Your task to perform on an android device: Open Google Chrome and open the bookmarks view Image 0: 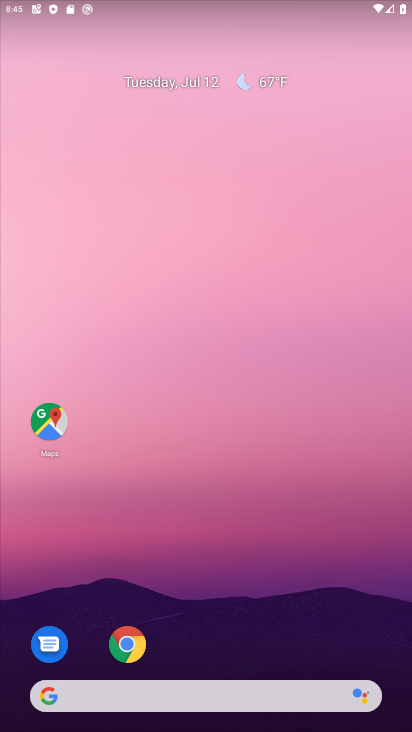
Step 0: click (274, 125)
Your task to perform on an android device: Open Google Chrome and open the bookmarks view Image 1: 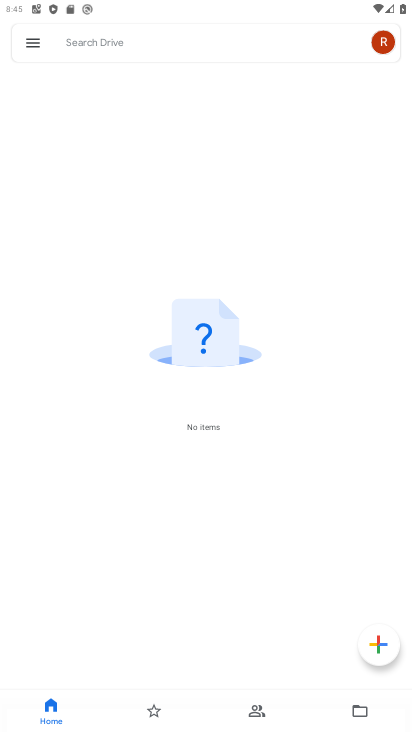
Step 1: press home button
Your task to perform on an android device: Open Google Chrome and open the bookmarks view Image 2: 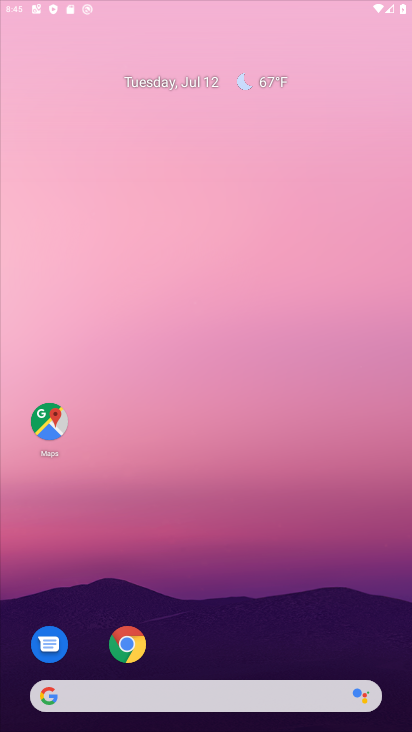
Step 2: drag from (217, 612) to (181, 0)
Your task to perform on an android device: Open Google Chrome and open the bookmarks view Image 3: 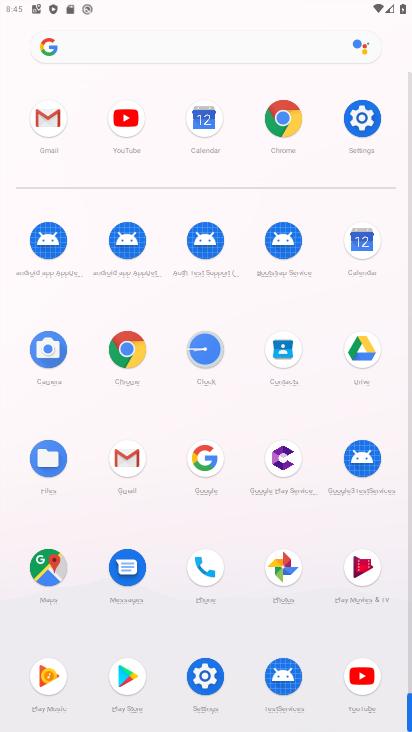
Step 3: click (286, 112)
Your task to perform on an android device: Open Google Chrome and open the bookmarks view Image 4: 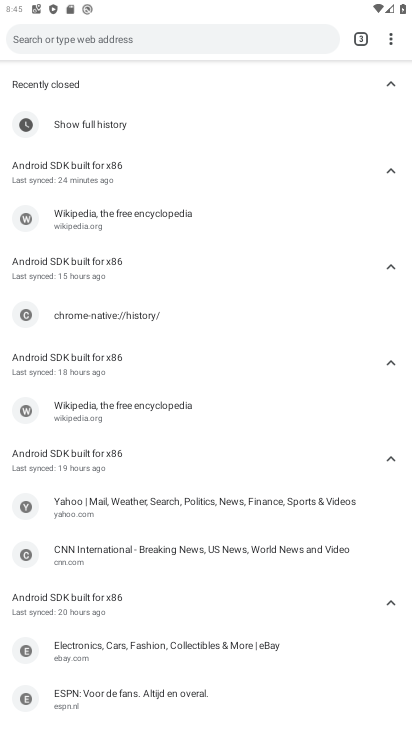
Step 4: click (392, 33)
Your task to perform on an android device: Open Google Chrome and open the bookmarks view Image 5: 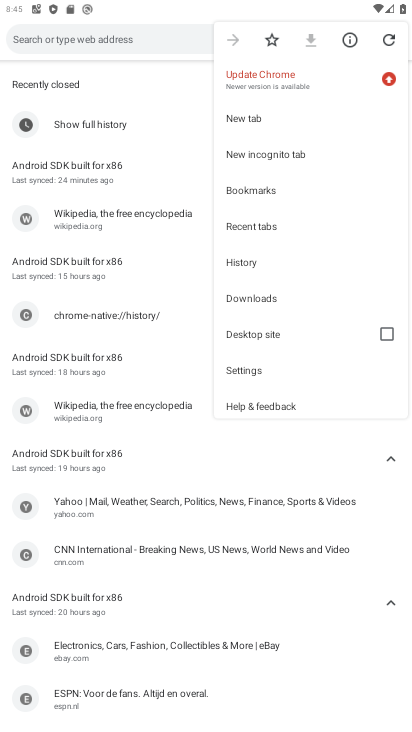
Step 5: click (263, 185)
Your task to perform on an android device: Open Google Chrome and open the bookmarks view Image 6: 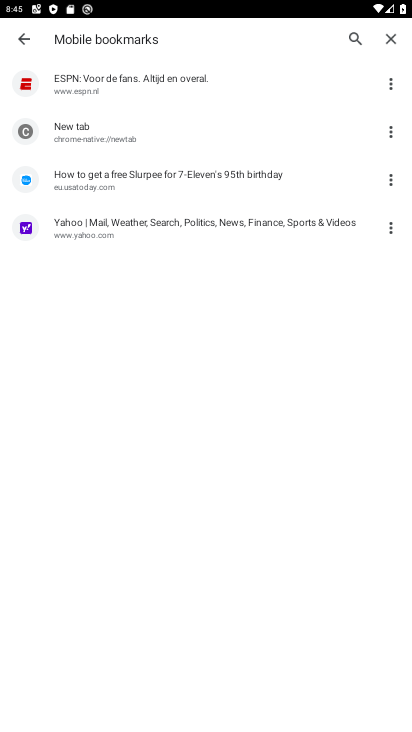
Step 6: task complete